Your task to perform on an android device: Open the calendar and show me this week's events Image 0: 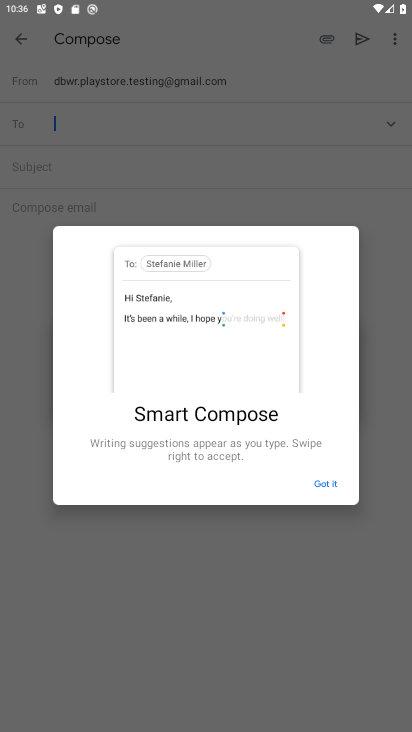
Step 0: press home button
Your task to perform on an android device: Open the calendar and show me this week's events Image 1: 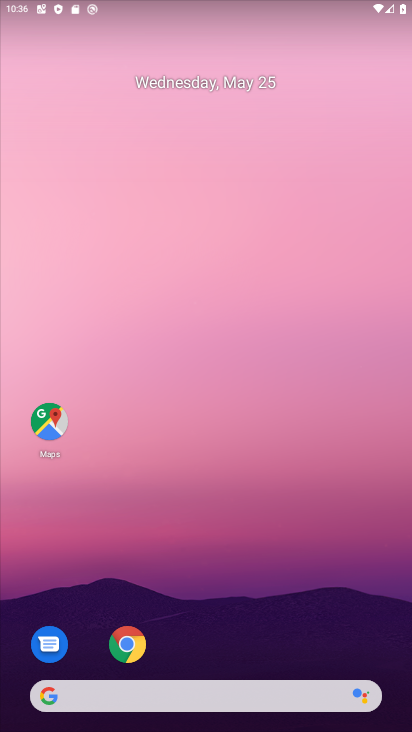
Step 1: drag from (252, 564) to (121, 98)
Your task to perform on an android device: Open the calendar and show me this week's events Image 2: 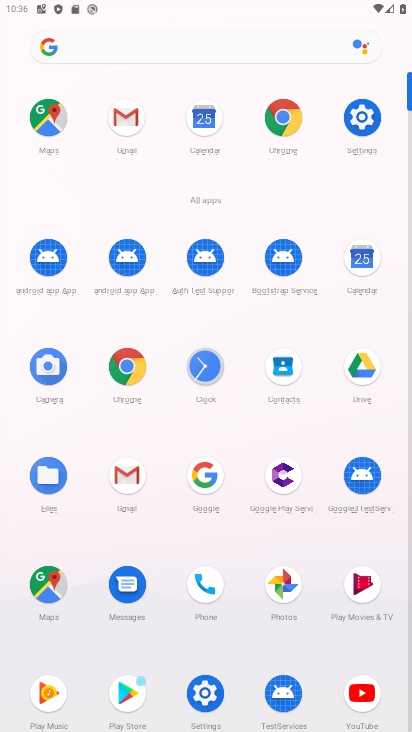
Step 2: click (360, 264)
Your task to perform on an android device: Open the calendar and show me this week's events Image 3: 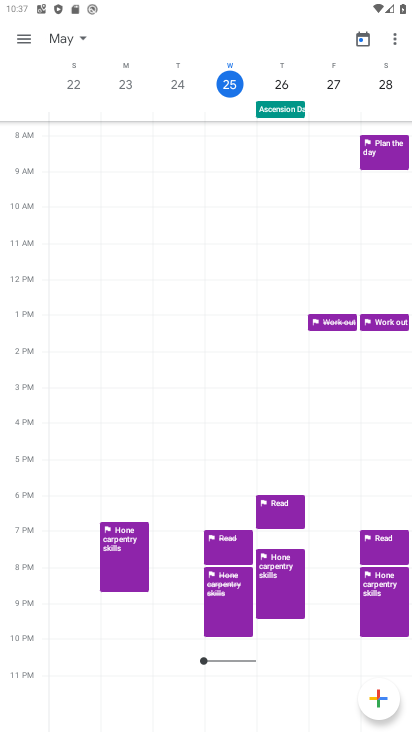
Step 3: task complete